Your task to perform on an android device: Open the stopwatch Image 0: 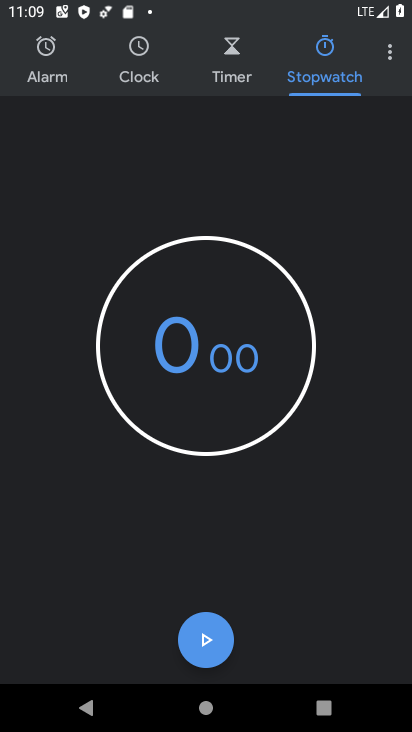
Step 0: click (206, 644)
Your task to perform on an android device: Open the stopwatch Image 1: 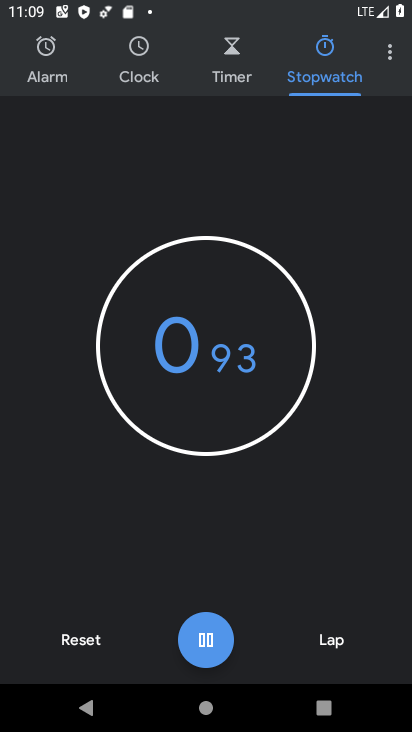
Step 1: click (206, 644)
Your task to perform on an android device: Open the stopwatch Image 2: 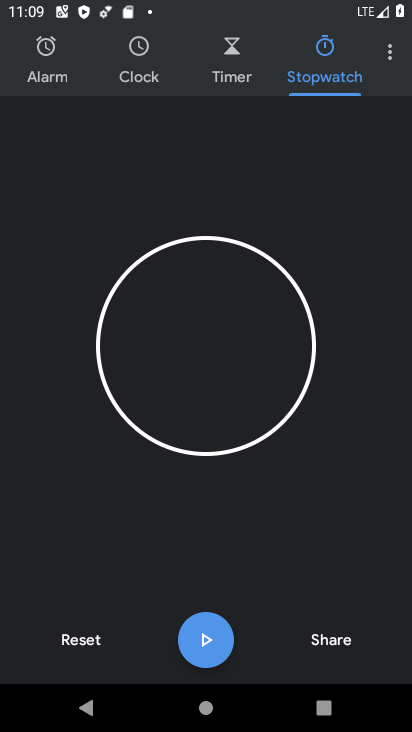
Step 2: task complete